Your task to perform on an android device: Go to calendar. Show me events next week Image 0: 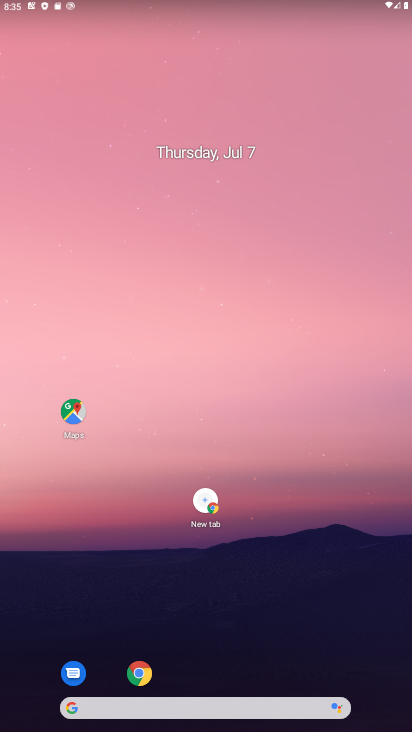
Step 0: press home button
Your task to perform on an android device: Go to calendar. Show me events next week Image 1: 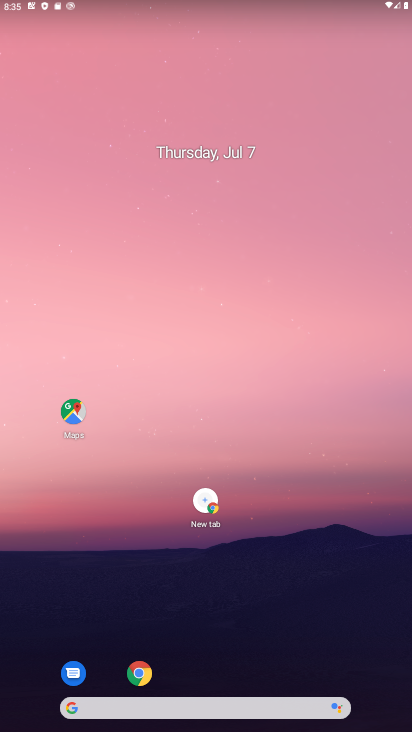
Step 1: drag from (309, 587) to (251, 38)
Your task to perform on an android device: Go to calendar. Show me events next week Image 2: 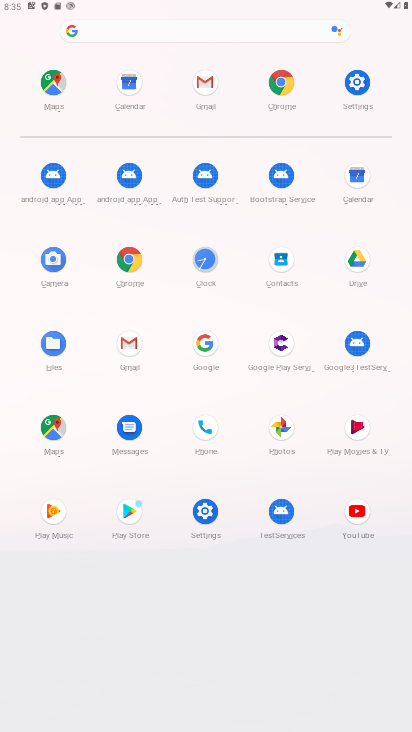
Step 2: click (360, 181)
Your task to perform on an android device: Go to calendar. Show me events next week Image 3: 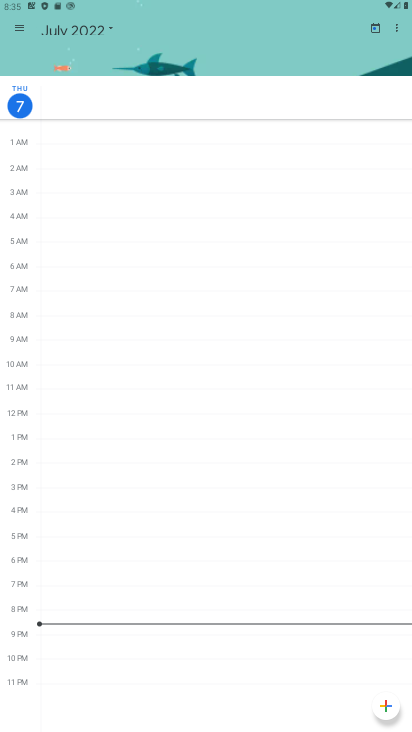
Step 3: click (19, 27)
Your task to perform on an android device: Go to calendar. Show me events next week Image 4: 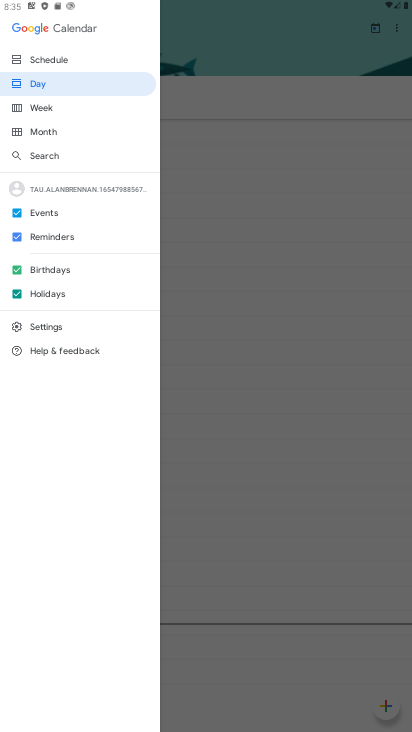
Step 4: click (53, 58)
Your task to perform on an android device: Go to calendar. Show me events next week Image 5: 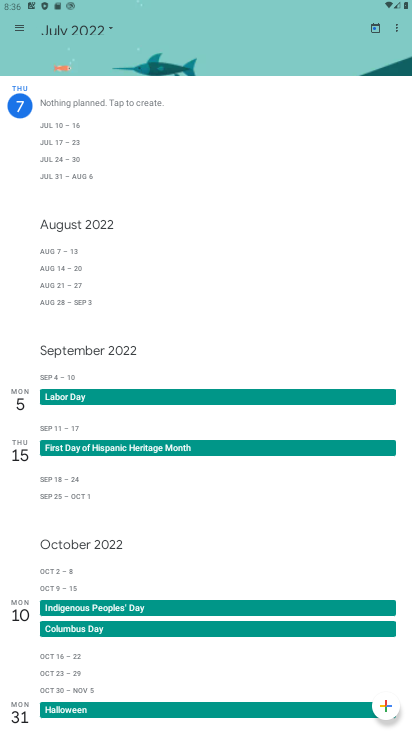
Step 5: task complete